Your task to perform on an android device: clear all cookies in the chrome app Image 0: 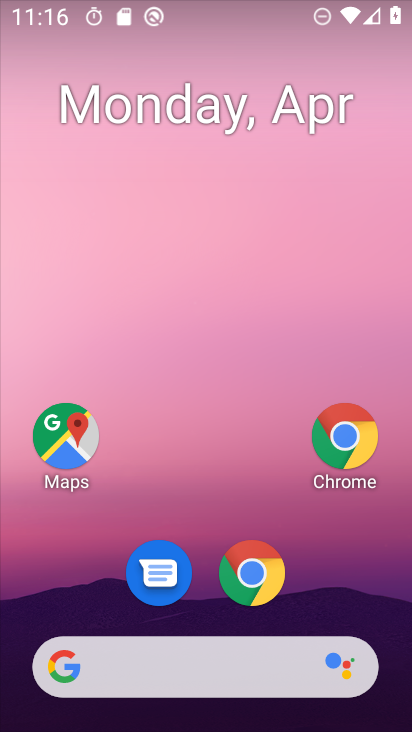
Step 0: click (347, 419)
Your task to perform on an android device: clear all cookies in the chrome app Image 1: 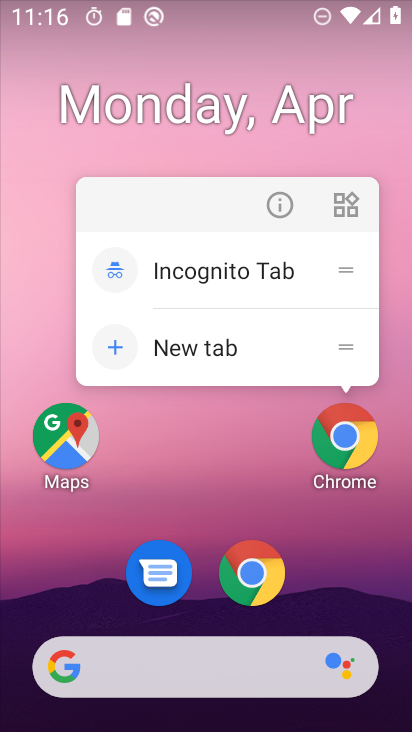
Step 1: click (347, 419)
Your task to perform on an android device: clear all cookies in the chrome app Image 2: 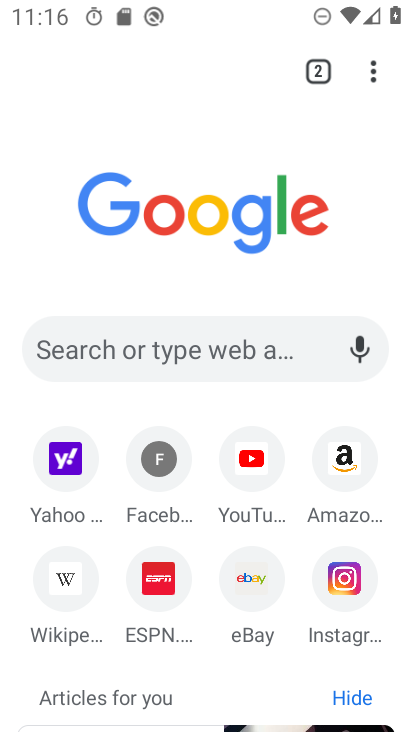
Step 2: drag from (368, 85) to (182, 517)
Your task to perform on an android device: clear all cookies in the chrome app Image 3: 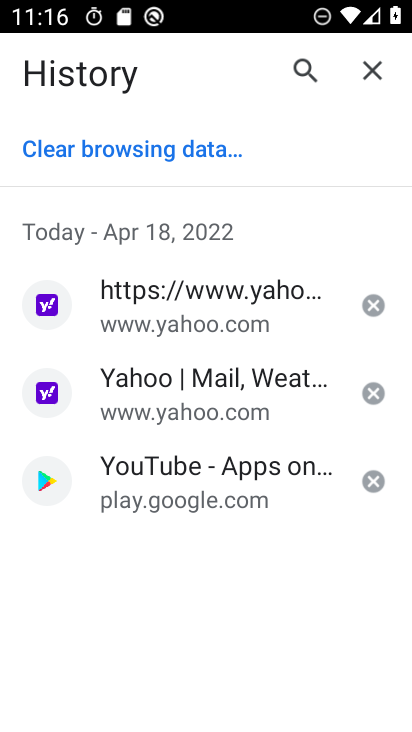
Step 3: click (98, 151)
Your task to perform on an android device: clear all cookies in the chrome app Image 4: 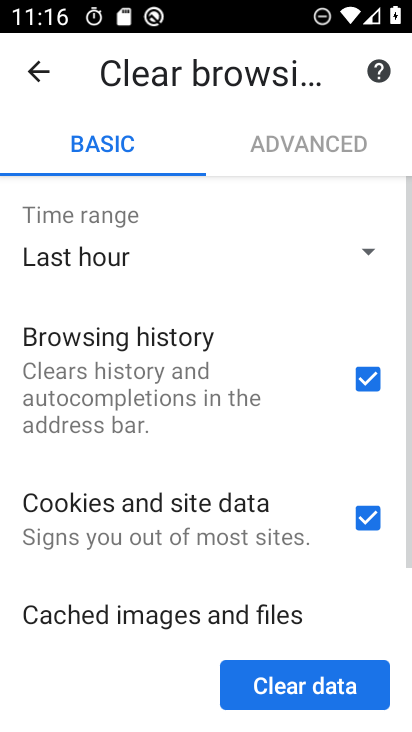
Step 4: click (360, 378)
Your task to perform on an android device: clear all cookies in the chrome app Image 5: 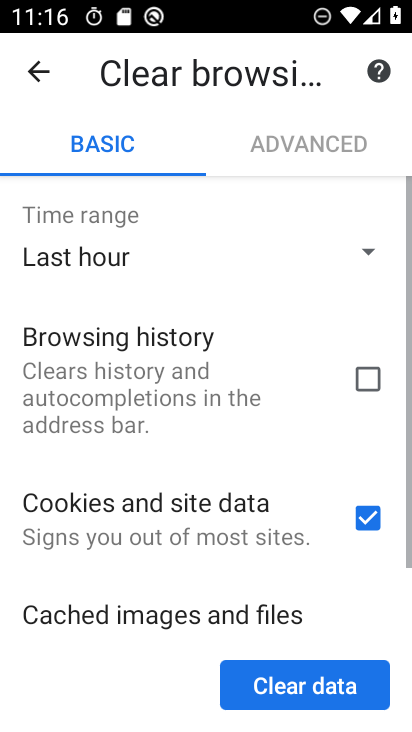
Step 5: drag from (222, 554) to (220, 261)
Your task to perform on an android device: clear all cookies in the chrome app Image 6: 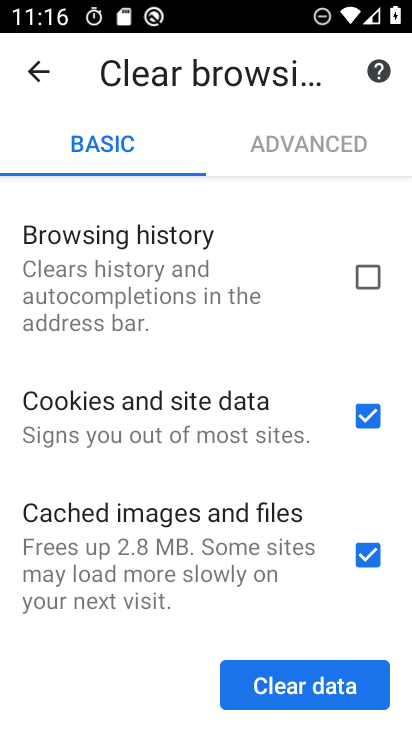
Step 6: click (370, 556)
Your task to perform on an android device: clear all cookies in the chrome app Image 7: 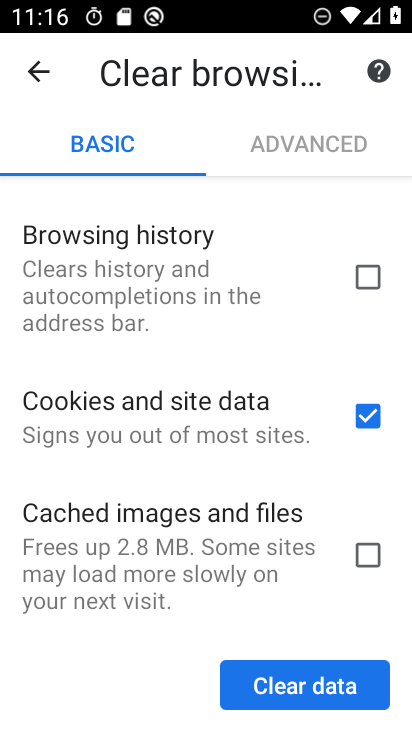
Step 7: drag from (243, 508) to (213, 185)
Your task to perform on an android device: clear all cookies in the chrome app Image 8: 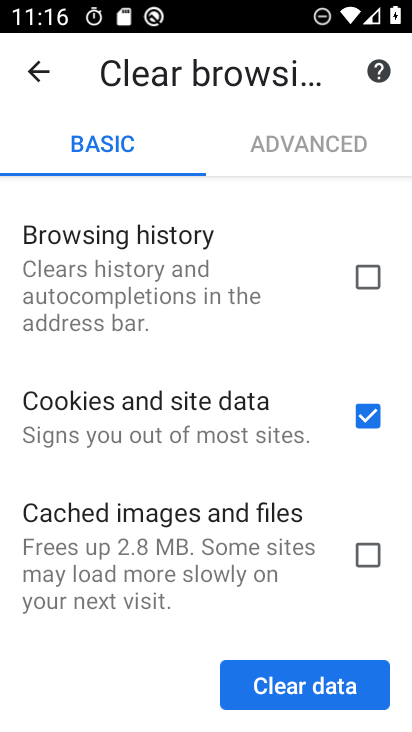
Step 8: click (338, 683)
Your task to perform on an android device: clear all cookies in the chrome app Image 9: 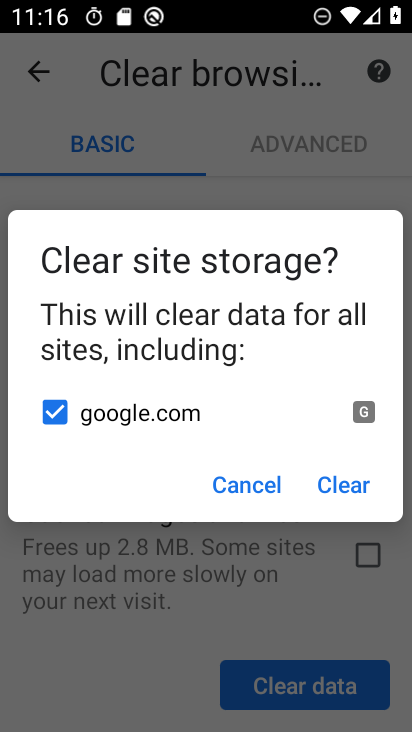
Step 9: click (322, 487)
Your task to perform on an android device: clear all cookies in the chrome app Image 10: 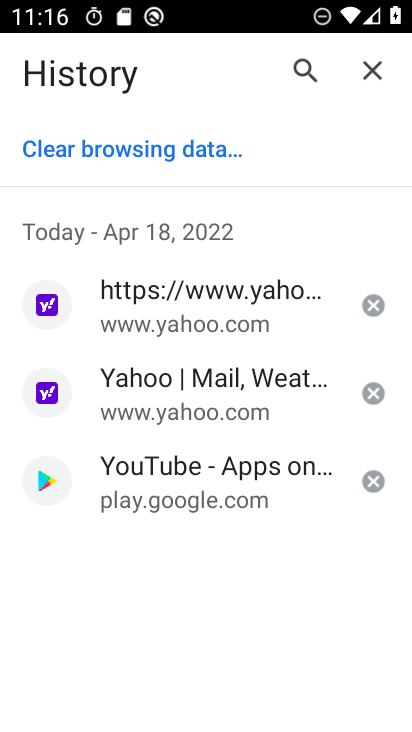
Step 10: task complete